Your task to perform on an android device: turn smart compose on in the gmail app Image 0: 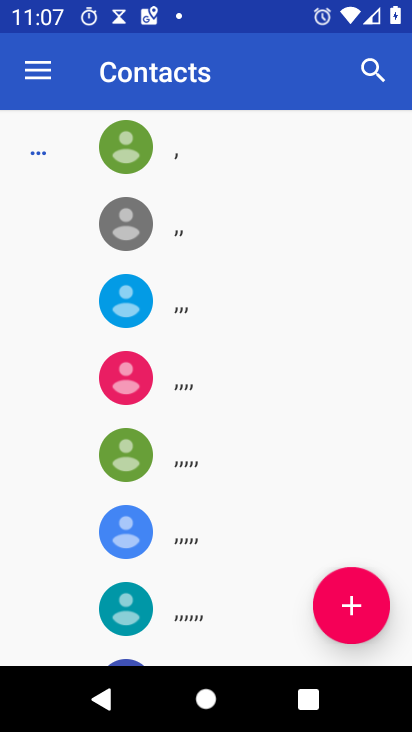
Step 0: press home button
Your task to perform on an android device: turn smart compose on in the gmail app Image 1: 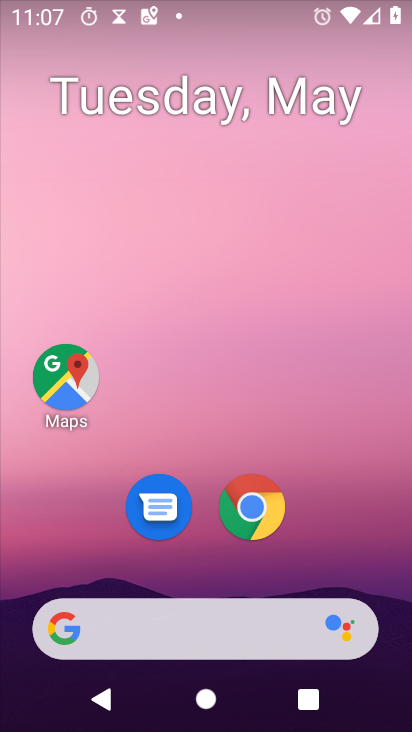
Step 1: drag from (22, 703) to (233, 171)
Your task to perform on an android device: turn smart compose on in the gmail app Image 2: 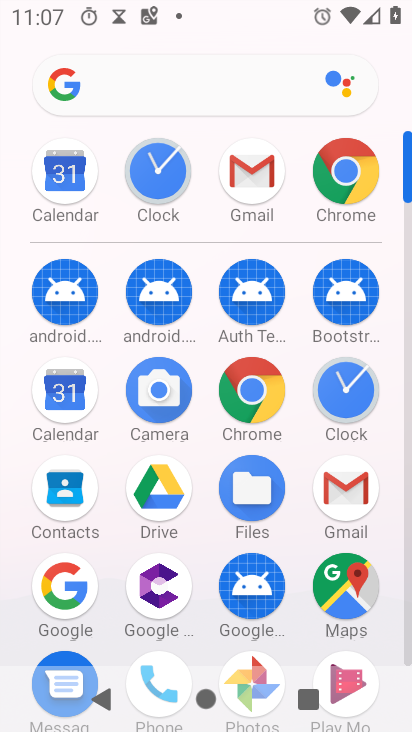
Step 2: click (253, 197)
Your task to perform on an android device: turn smart compose on in the gmail app Image 3: 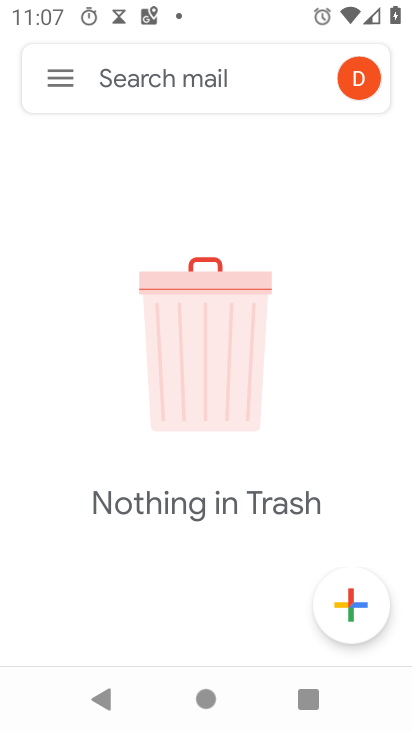
Step 3: click (49, 86)
Your task to perform on an android device: turn smart compose on in the gmail app Image 4: 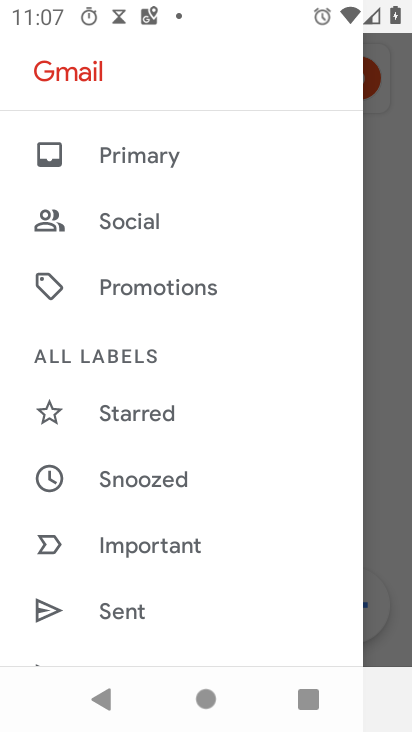
Step 4: drag from (1, 653) to (317, 53)
Your task to perform on an android device: turn smart compose on in the gmail app Image 5: 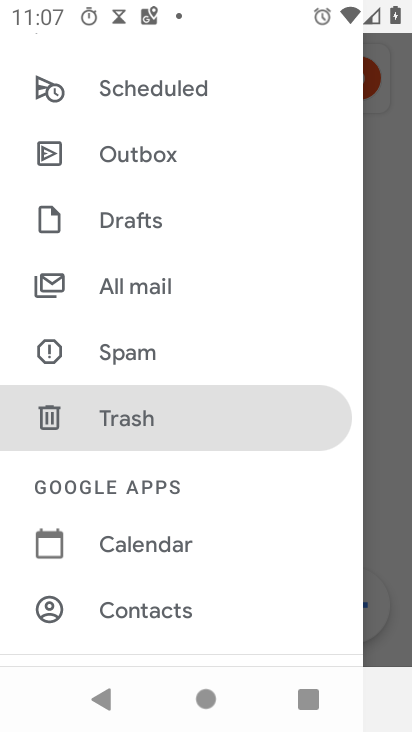
Step 5: drag from (10, 579) to (330, 117)
Your task to perform on an android device: turn smart compose on in the gmail app Image 6: 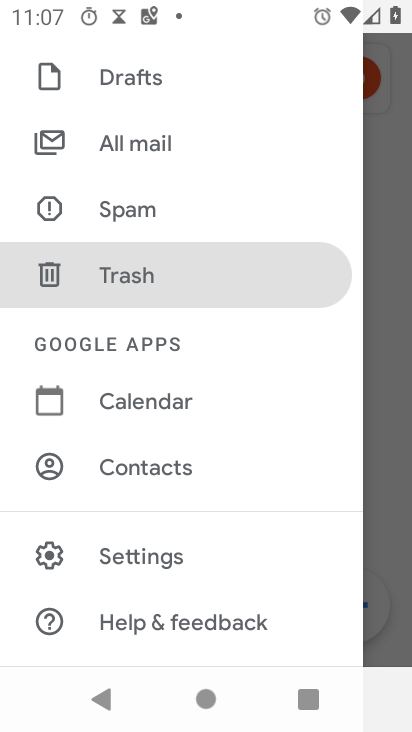
Step 6: click (127, 561)
Your task to perform on an android device: turn smart compose on in the gmail app Image 7: 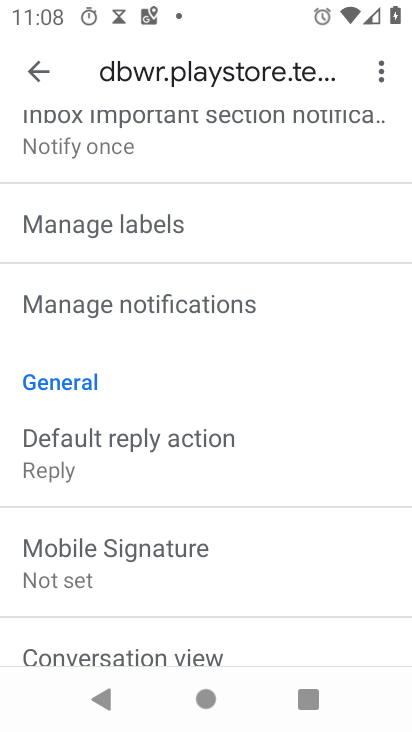
Step 7: task complete